Your task to perform on an android device: Search for dell xps on ebay.com, select the first entry, and add it to the cart. Image 0: 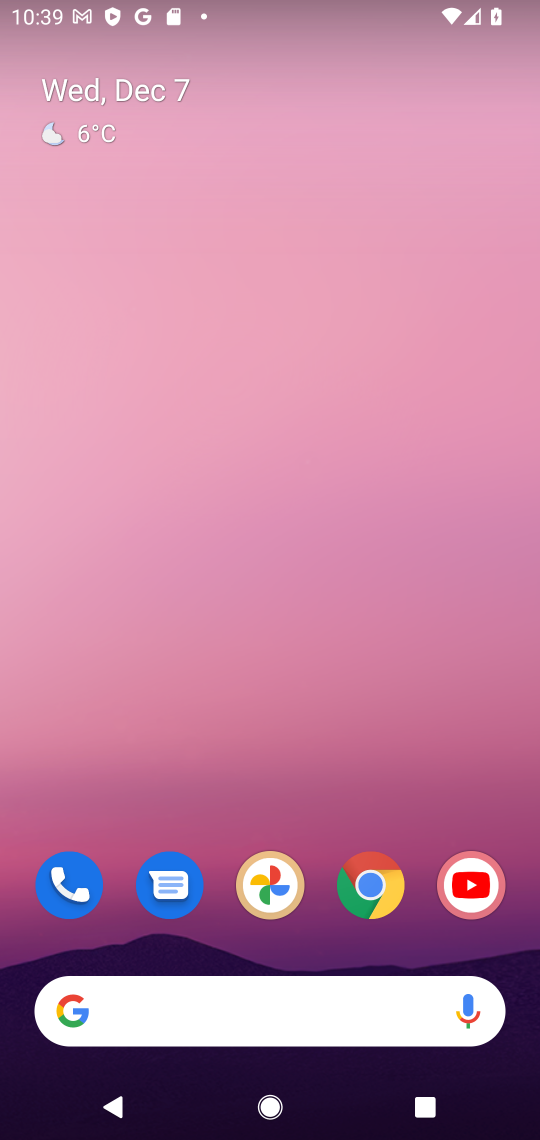
Step 0: click (360, 897)
Your task to perform on an android device: Search for dell xps on ebay.com, select the first entry, and add it to the cart. Image 1: 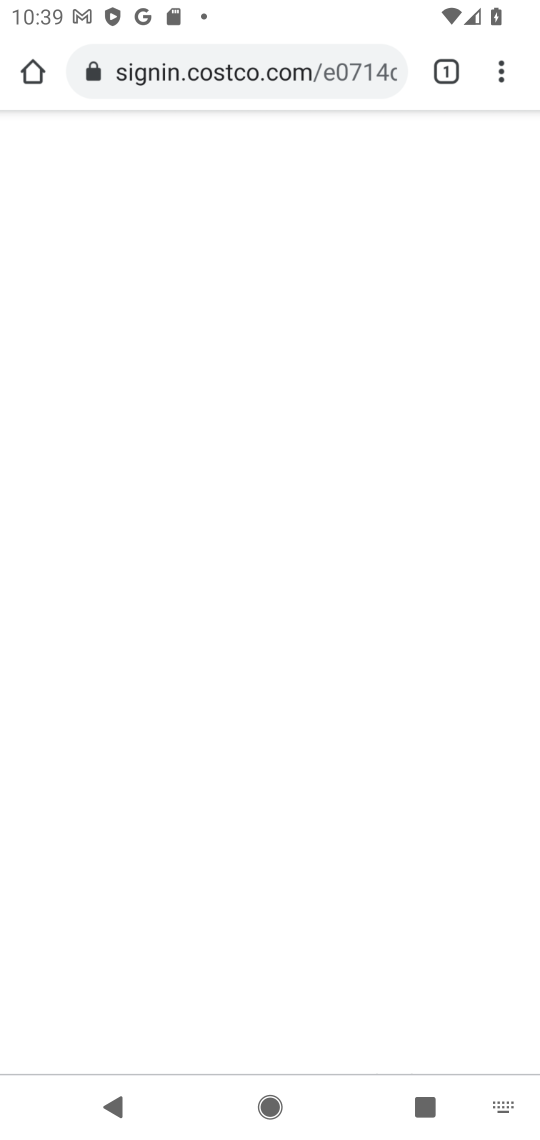
Step 1: click (227, 68)
Your task to perform on an android device: Search for dell xps on ebay.com, select the first entry, and add it to the cart. Image 2: 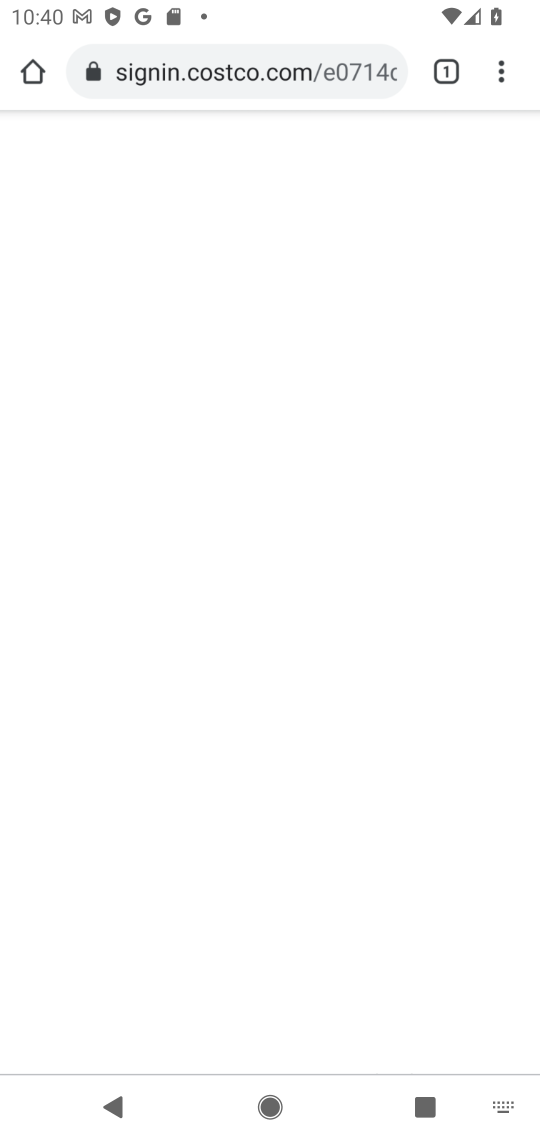
Step 2: click (275, 71)
Your task to perform on an android device: Search for dell xps on ebay.com, select the first entry, and add it to the cart. Image 3: 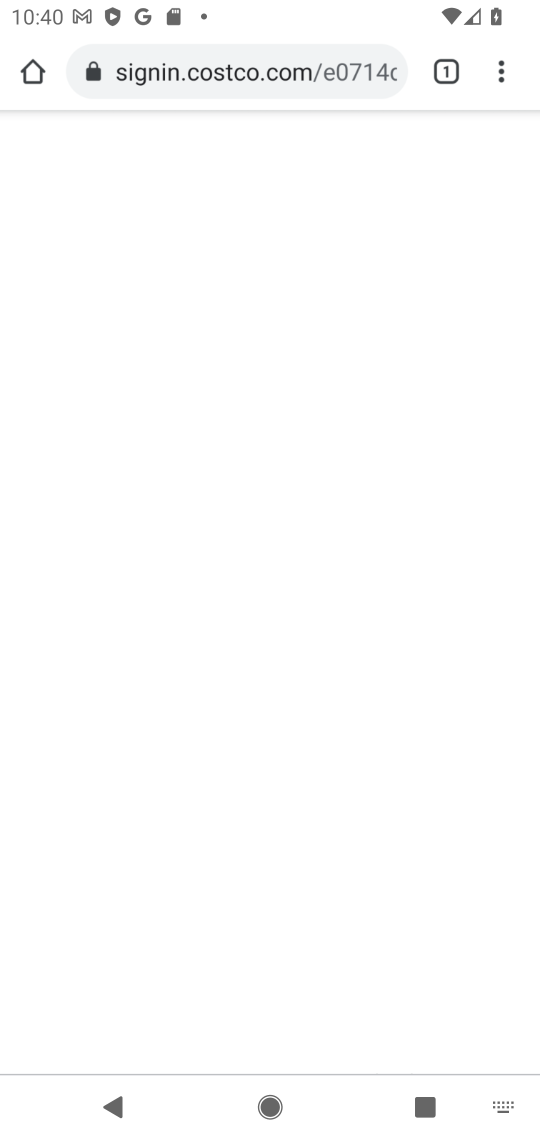
Step 3: click (275, 71)
Your task to perform on an android device: Search for dell xps on ebay.com, select the first entry, and add it to the cart. Image 4: 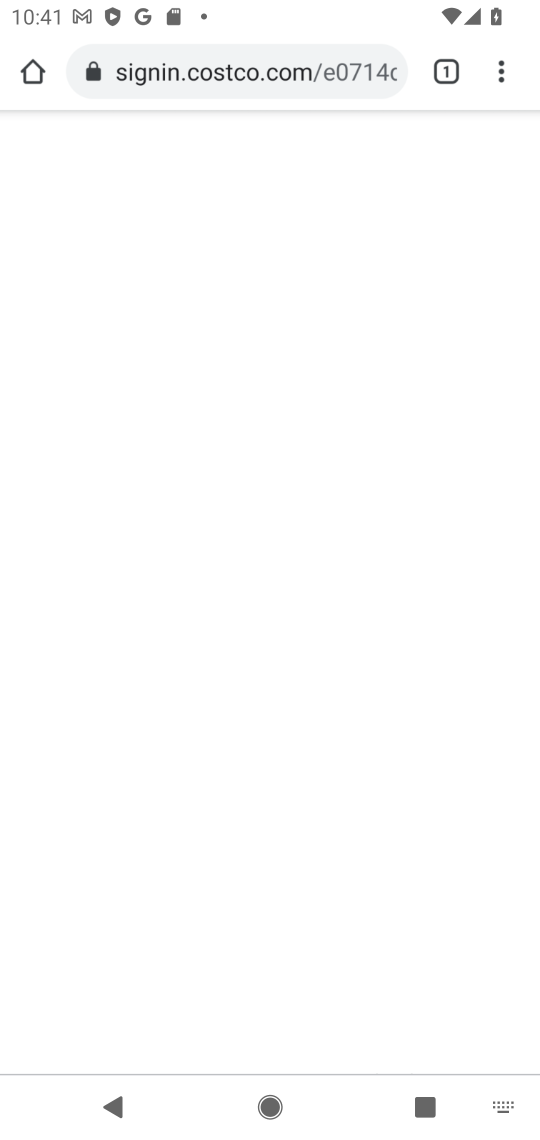
Step 4: click (258, 73)
Your task to perform on an android device: Search for dell xps on ebay.com, select the first entry, and add it to the cart. Image 5: 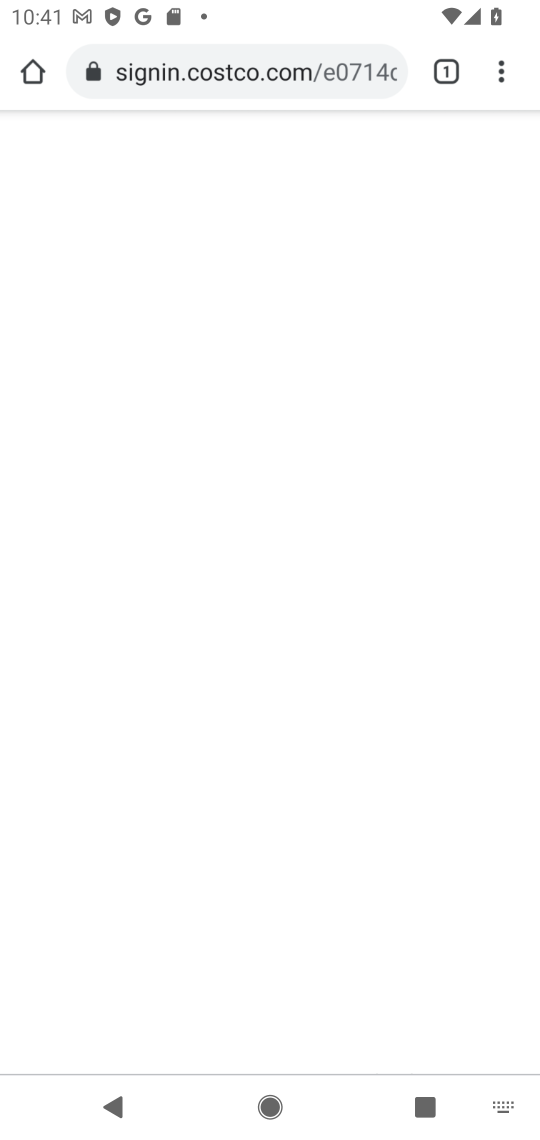
Step 5: task complete